Your task to perform on an android device: Go to internet settings Image 0: 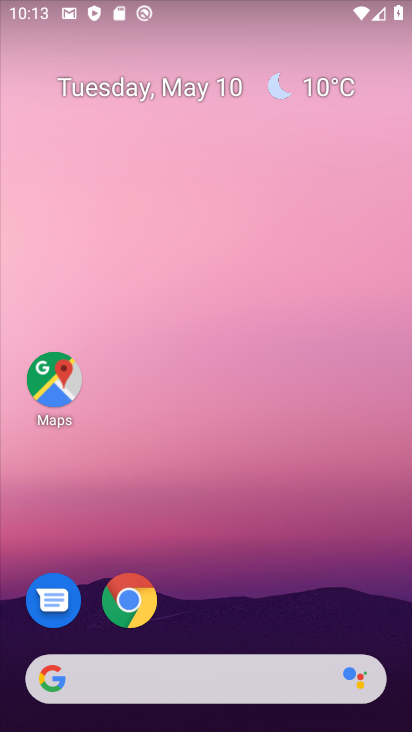
Step 0: drag from (253, 534) to (194, 120)
Your task to perform on an android device: Go to internet settings Image 1: 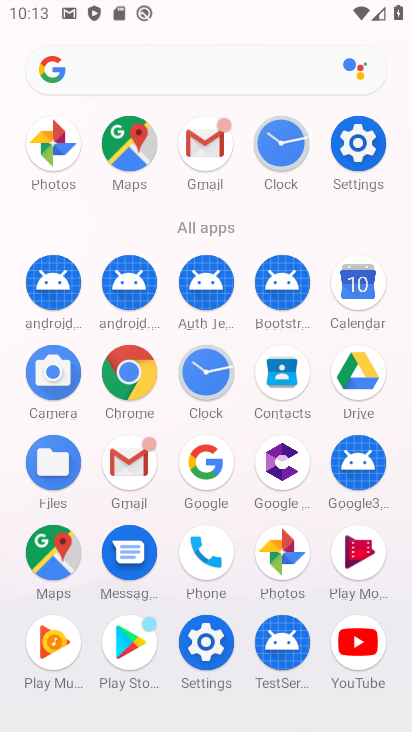
Step 1: click (368, 129)
Your task to perform on an android device: Go to internet settings Image 2: 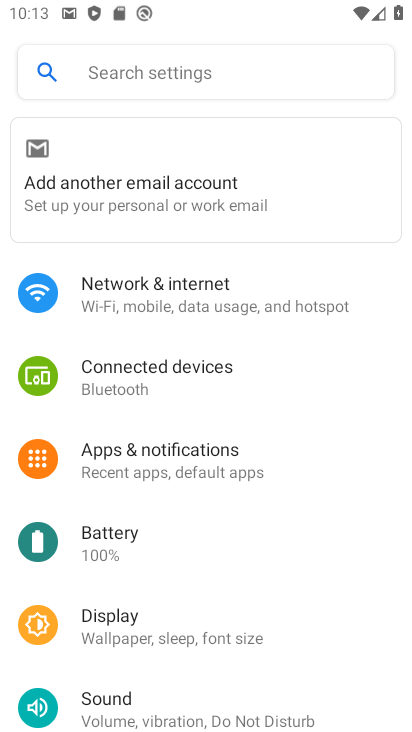
Step 2: click (213, 283)
Your task to perform on an android device: Go to internet settings Image 3: 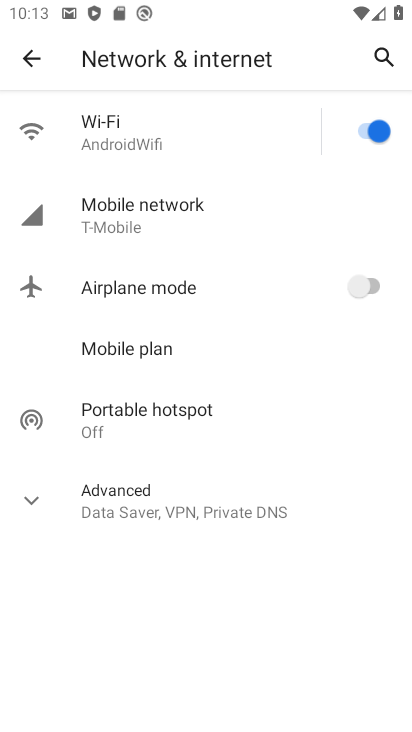
Step 3: task complete